Your task to perform on an android device: turn on sleep mode Image 0: 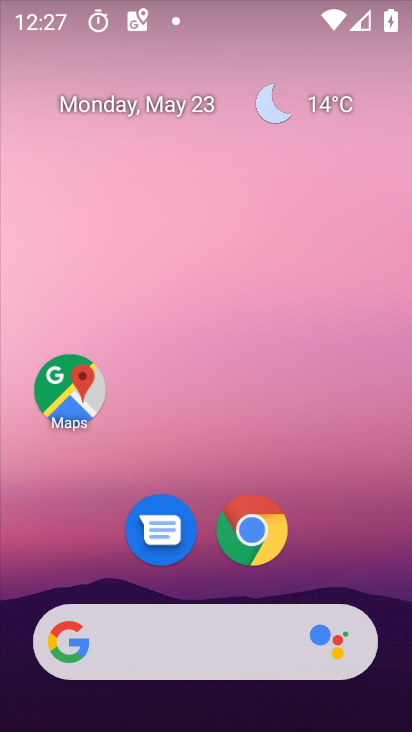
Step 0: drag from (391, 488) to (390, 311)
Your task to perform on an android device: turn on sleep mode Image 1: 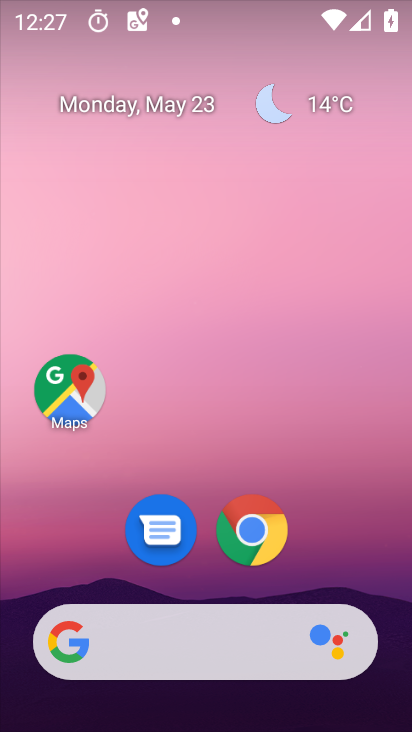
Step 1: drag from (389, 642) to (361, 272)
Your task to perform on an android device: turn on sleep mode Image 2: 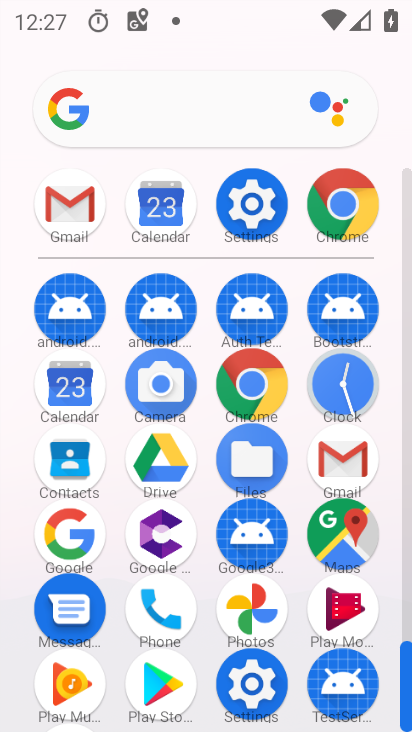
Step 2: click (256, 193)
Your task to perform on an android device: turn on sleep mode Image 3: 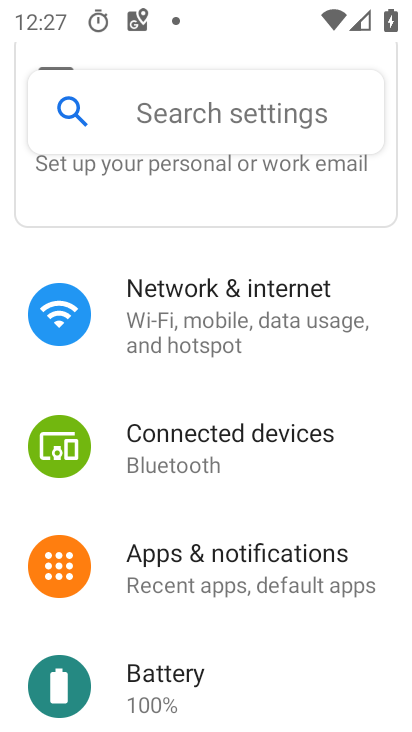
Step 3: drag from (303, 689) to (301, 297)
Your task to perform on an android device: turn on sleep mode Image 4: 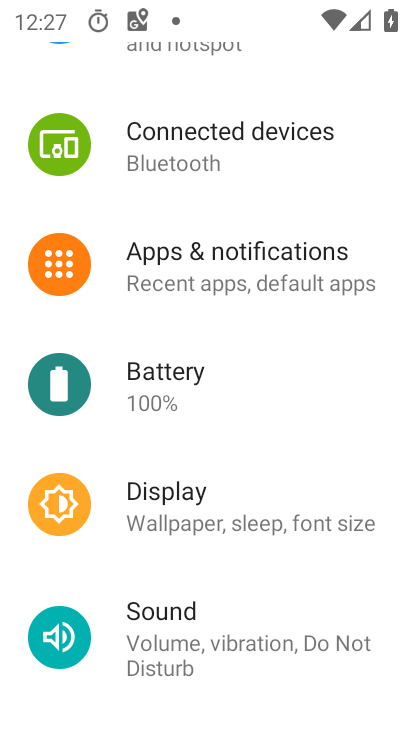
Step 4: drag from (228, 670) to (258, 338)
Your task to perform on an android device: turn on sleep mode Image 5: 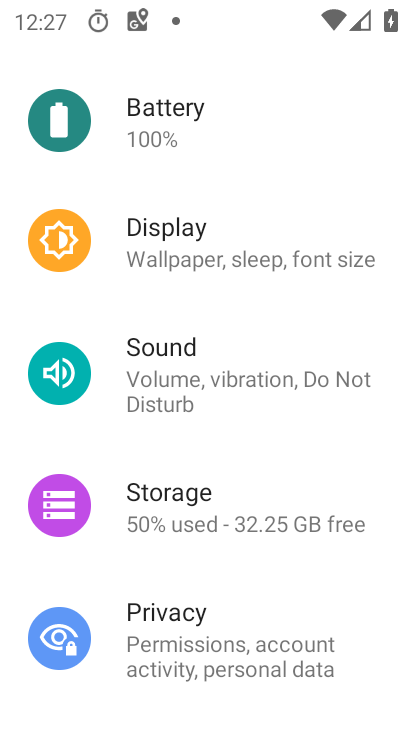
Step 5: click (147, 224)
Your task to perform on an android device: turn on sleep mode Image 6: 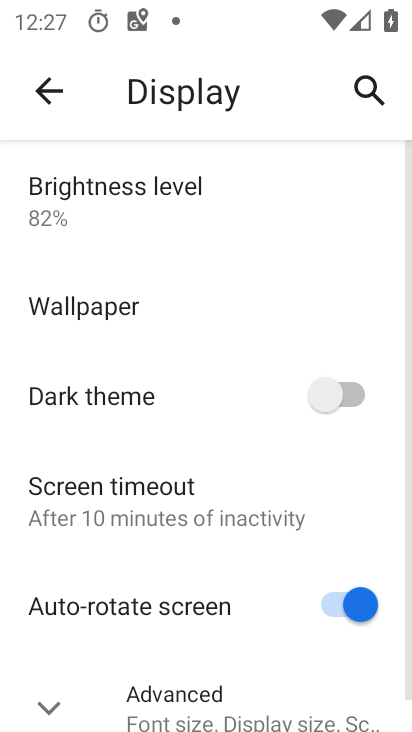
Step 6: click (131, 486)
Your task to perform on an android device: turn on sleep mode Image 7: 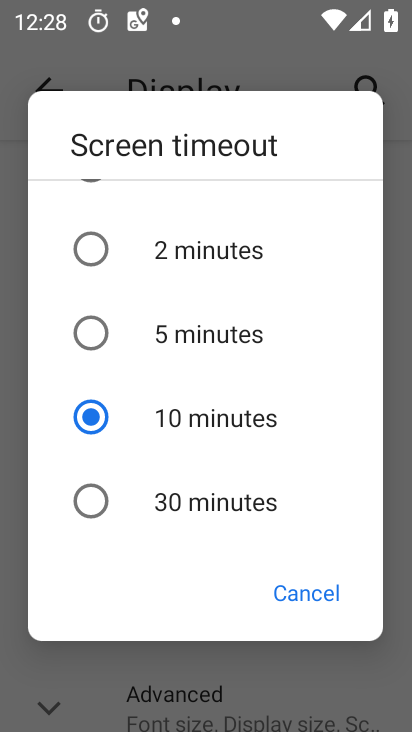
Step 7: click (87, 509)
Your task to perform on an android device: turn on sleep mode Image 8: 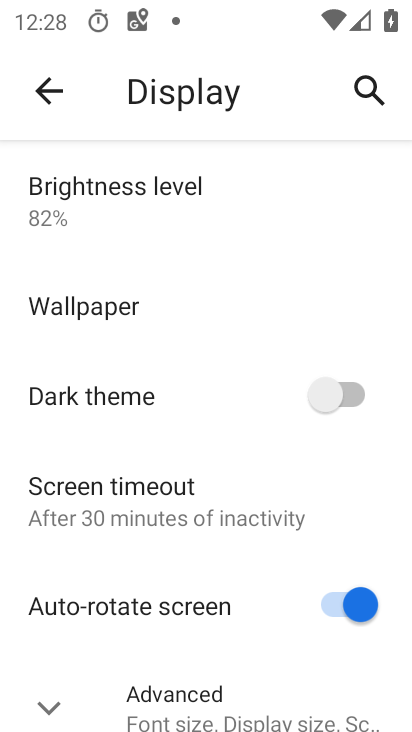
Step 8: task complete